Your task to perform on an android device: Go to battery settings Image 0: 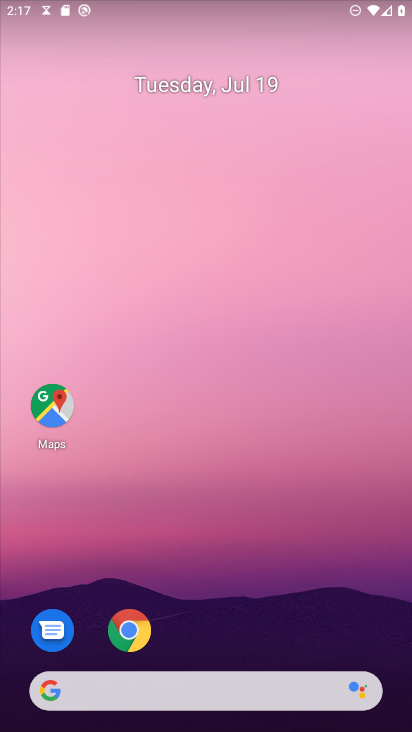
Step 0: drag from (138, 654) to (250, 194)
Your task to perform on an android device: Go to battery settings Image 1: 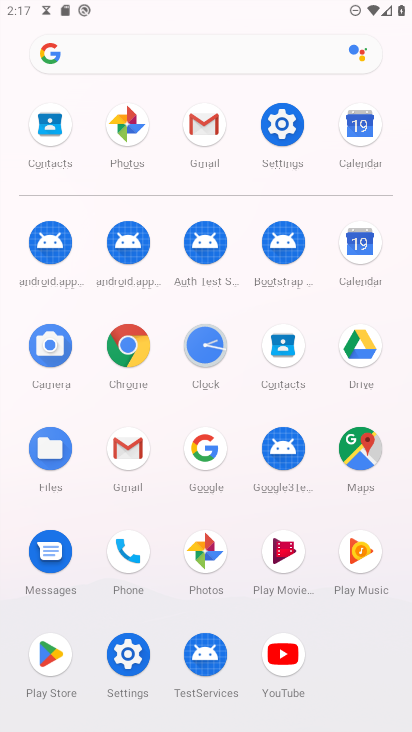
Step 1: click (284, 124)
Your task to perform on an android device: Go to battery settings Image 2: 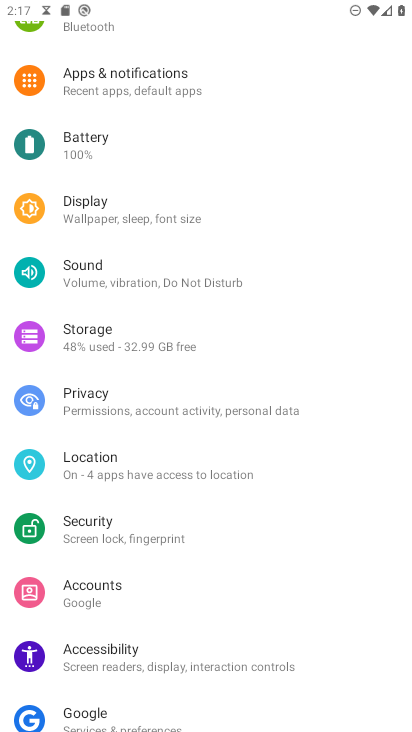
Step 2: drag from (195, 588) to (311, 197)
Your task to perform on an android device: Go to battery settings Image 3: 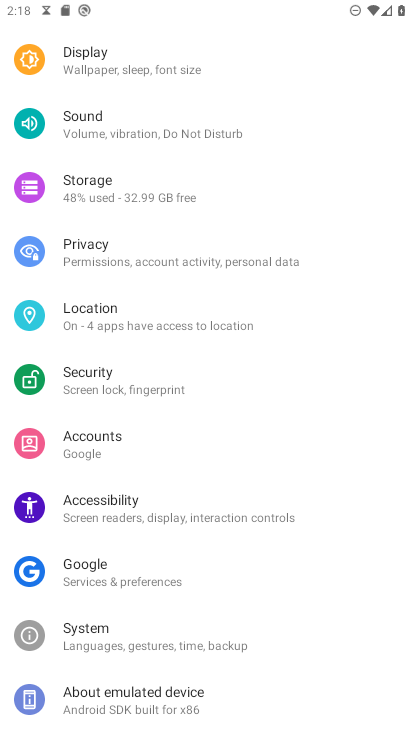
Step 3: drag from (293, 91) to (276, 491)
Your task to perform on an android device: Go to battery settings Image 4: 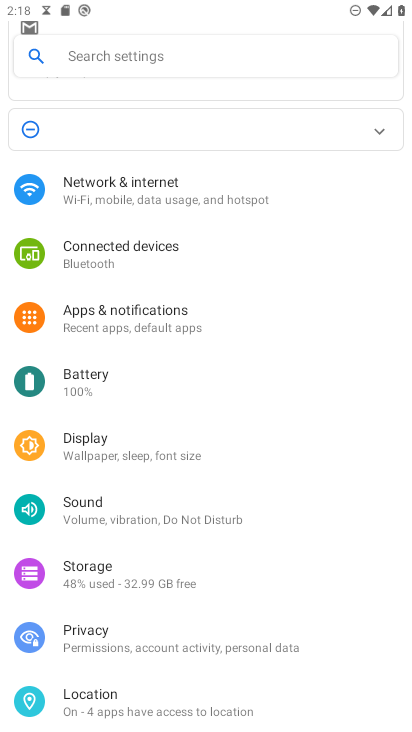
Step 4: click (94, 375)
Your task to perform on an android device: Go to battery settings Image 5: 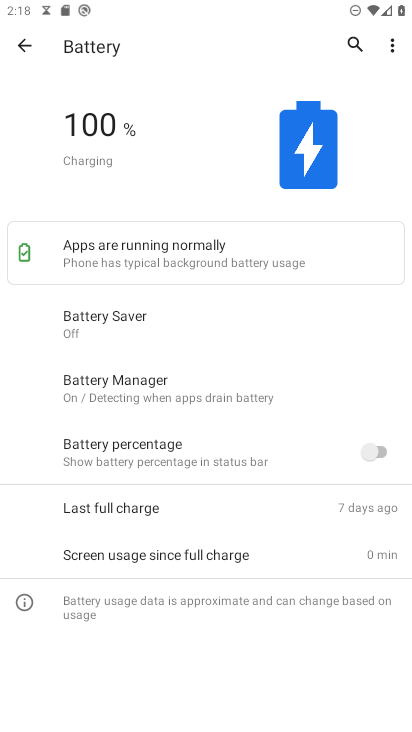
Step 5: task complete